Your task to perform on an android device: Open the map Image 0: 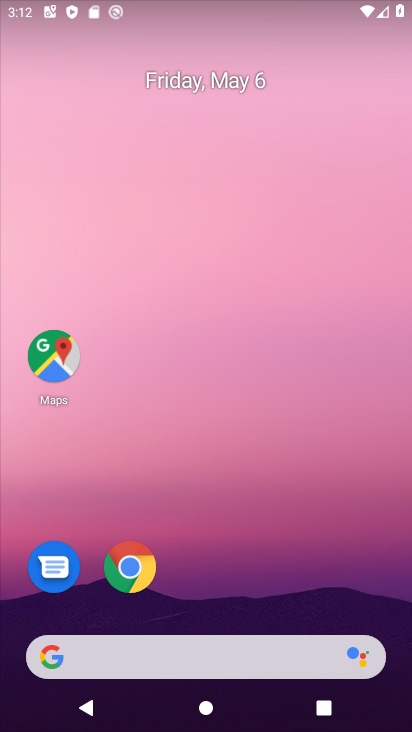
Step 0: click (53, 355)
Your task to perform on an android device: Open the map Image 1: 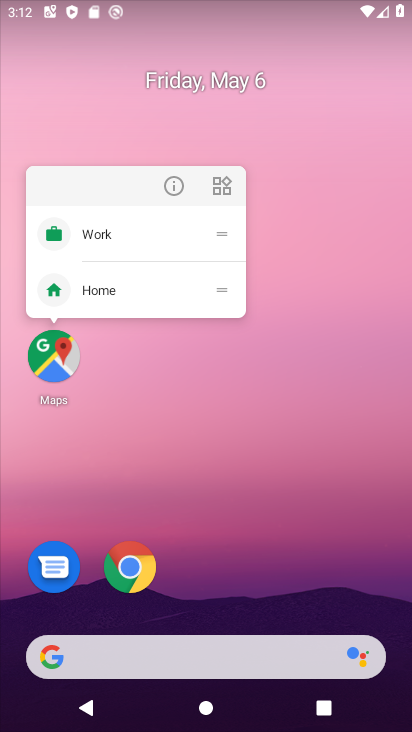
Step 1: click (176, 193)
Your task to perform on an android device: Open the map Image 2: 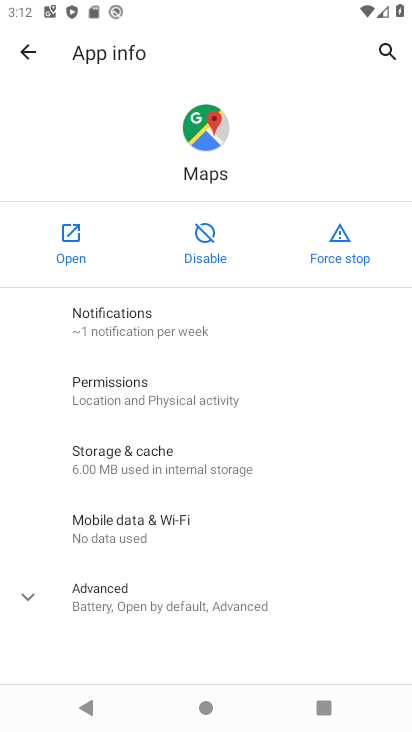
Step 2: click (66, 239)
Your task to perform on an android device: Open the map Image 3: 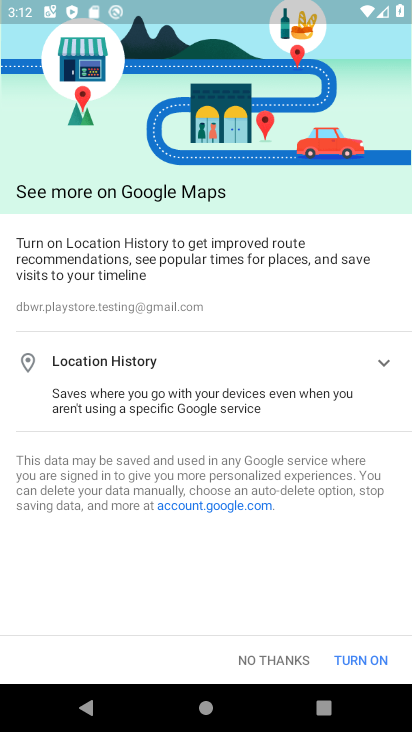
Step 3: task complete